Your task to perform on an android device: Go to Wikipedia Image 0: 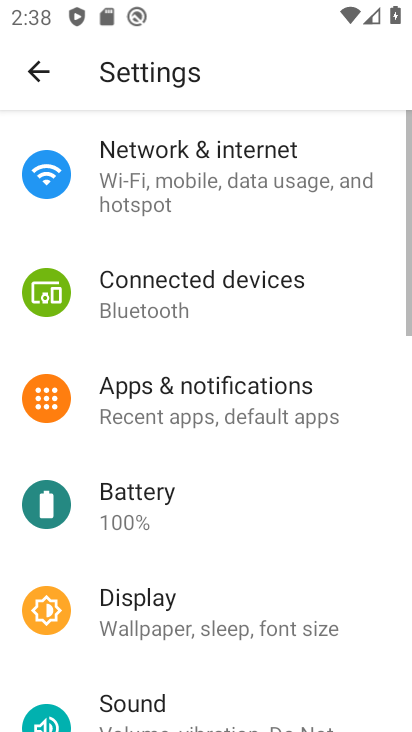
Step 0: press home button
Your task to perform on an android device: Go to Wikipedia Image 1: 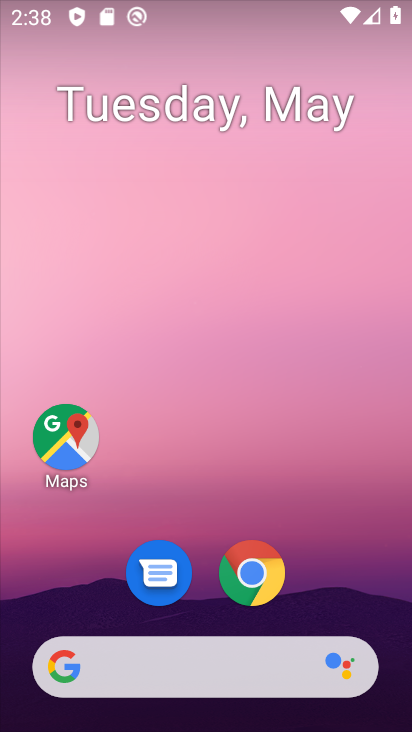
Step 1: click (264, 589)
Your task to perform on an android device: Go to Wikipedia Image 2: 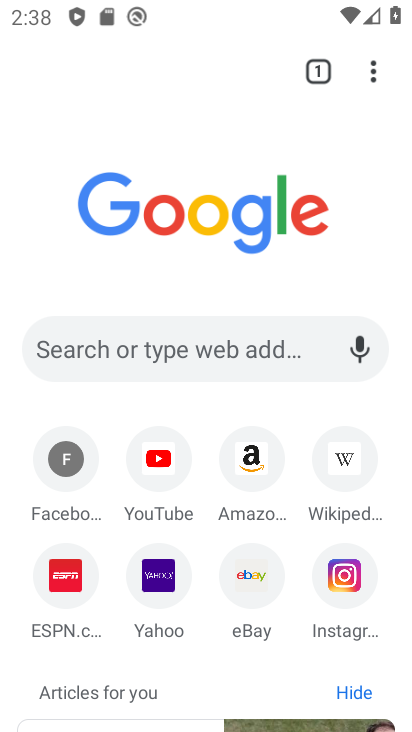
Step 2: click (353, 464)
Your task to perform on an android device: Go to Wikipedia Image 3: 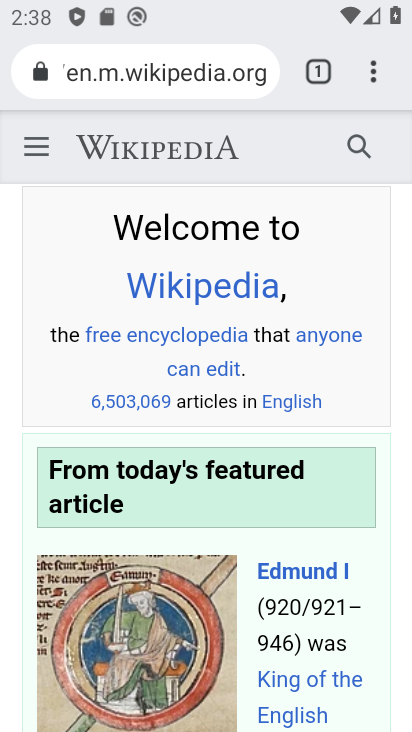
Step 3: task complete